Your task to perform on an android device: Open accessibility settings Image 0: 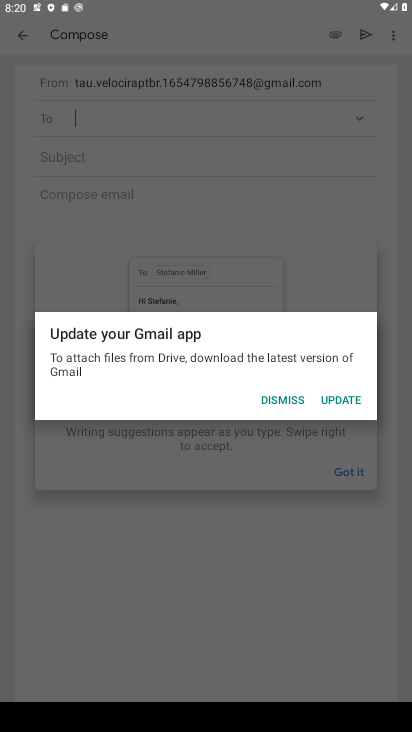
Step 0: press home button
Your task to perform on an android device: Open accessibility settings Image 1: 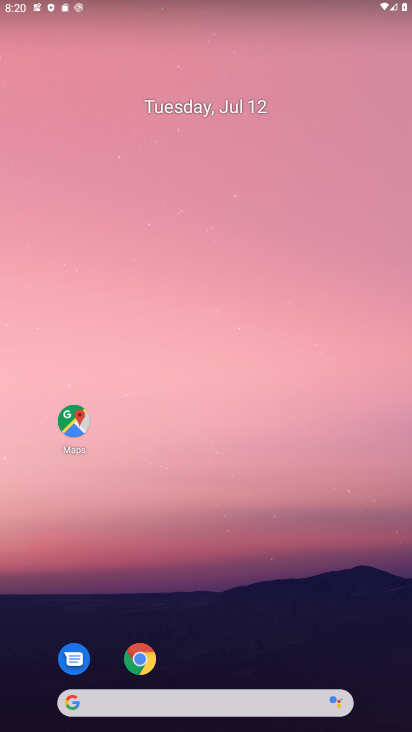
Step 1: drag from (175, 695) to (179, 256)
Your task to perform on an android device: Open accessibility settings Image 2: 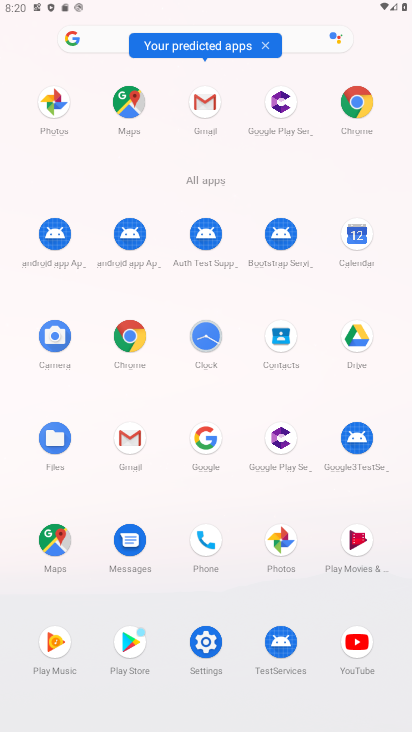
Step 2: click (208, 641)
Your task to perform on an android device: Open accessibility settings Image 3: 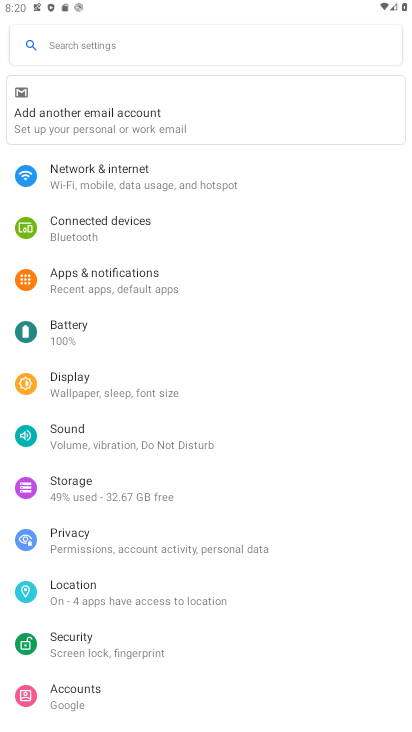
Step 3: drag from (90, 669) to (185, 540)
Your task to perform on an android device: Open accessibility settings Image 4: 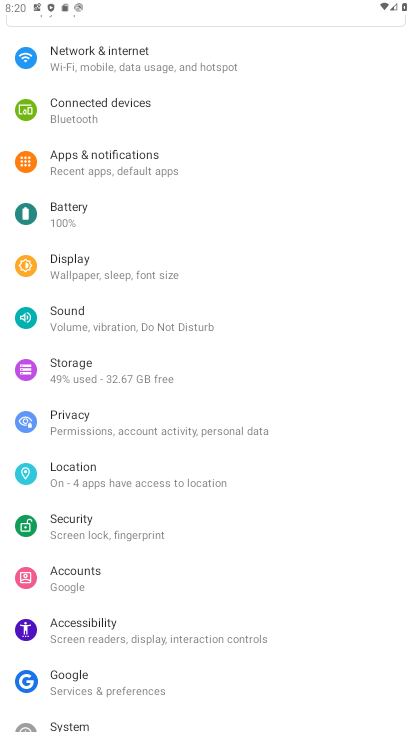
Step 4: click (121, 631)
Your task to perform on an android device: Open accessibility settings Image 5: 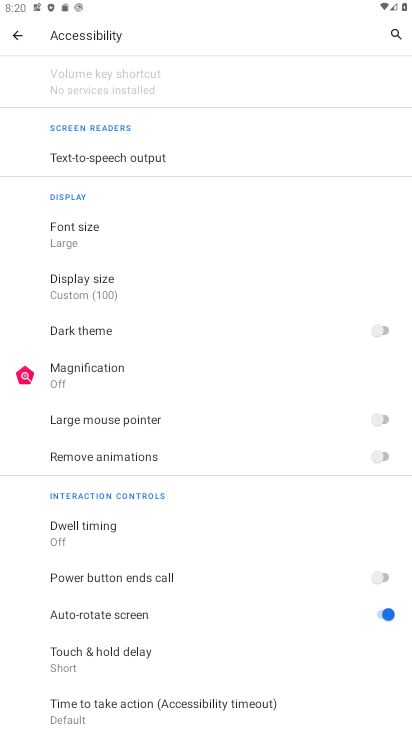
Step 5: task complete